Your task to perform on an android device: allow cookies in the chrome app Image 0: 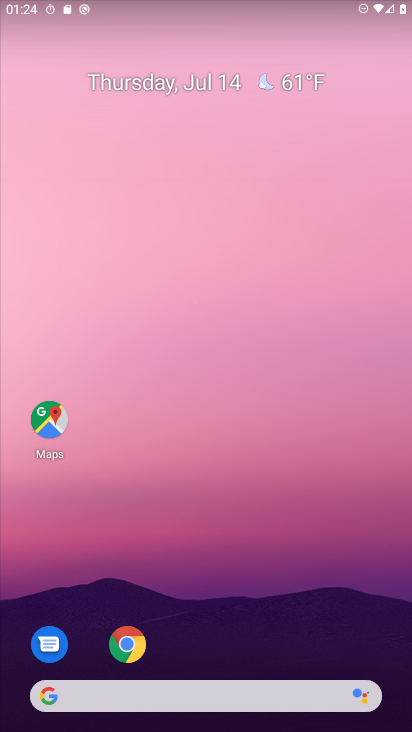
Step 0: drag from (344, 644) to (301, 127)
Your task to perform on an android device: allow cookies in the chrome app Image 1: 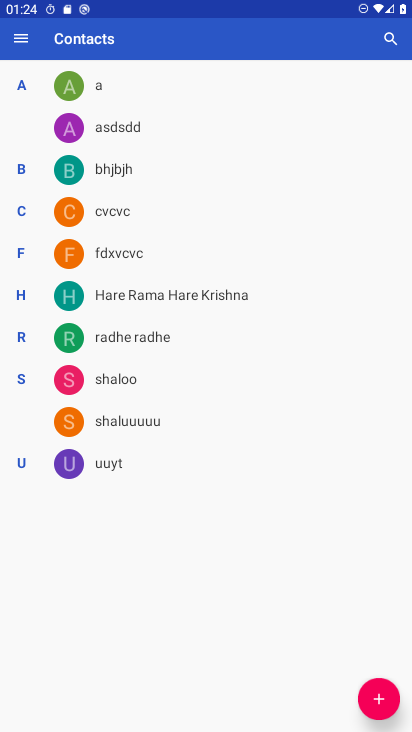
Step 1: press home button
Your task to perform on an android device: allow cookies in the chrome app Image 2: 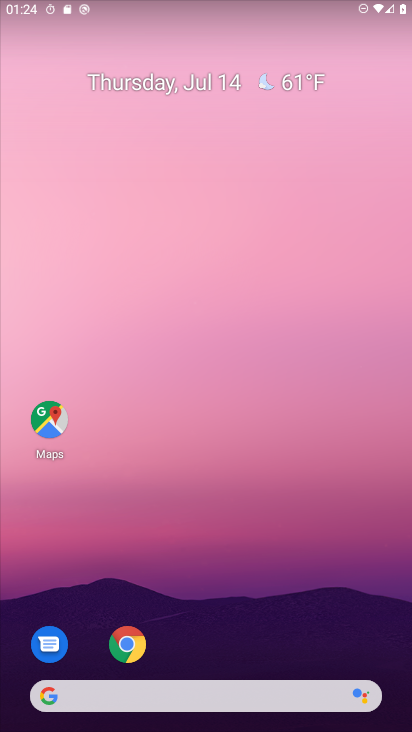
Step 2: drag from (297, 639) to (253, 128)
Your task to perform on an android device: allow cookies in the chrome app Image 3: 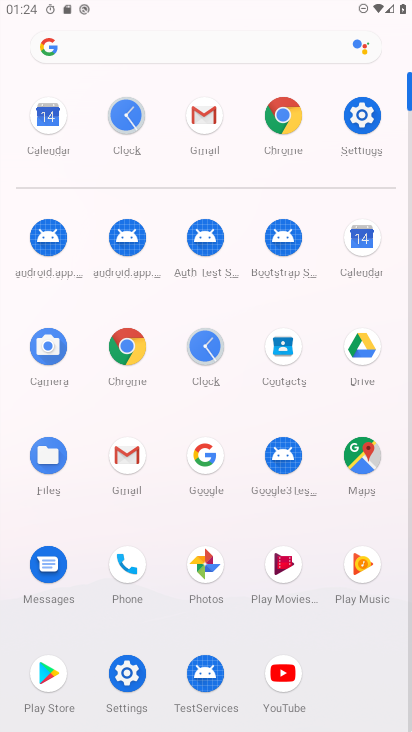
Step 3: click (120, 339)
Your task to perform on an android device: allow cookies in the chrome app Image 4: 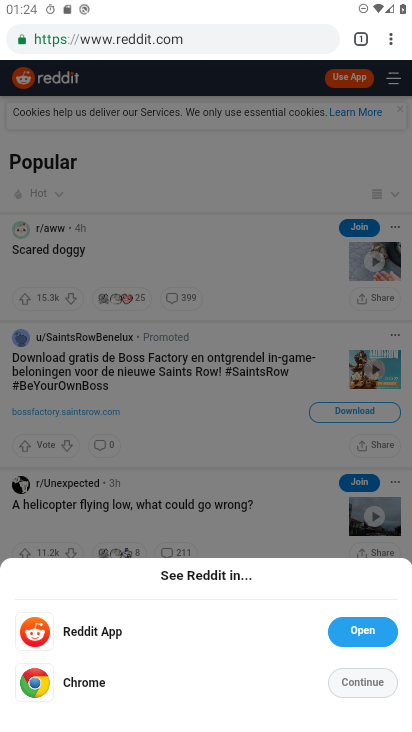
Step 4: drag from (397, 46) to (271, 467)
Your task to perform on an android device: allow cookies in the chrome app Image 5: 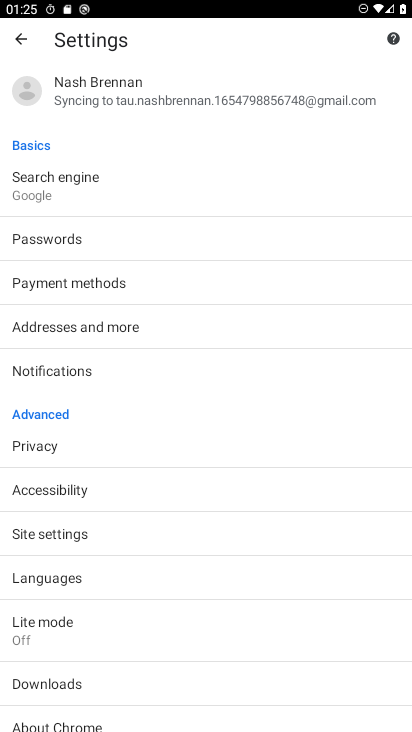
Step 5: click (63, 532)
Your task to perform on an android device: allow cookies in the chrome app Image 6: 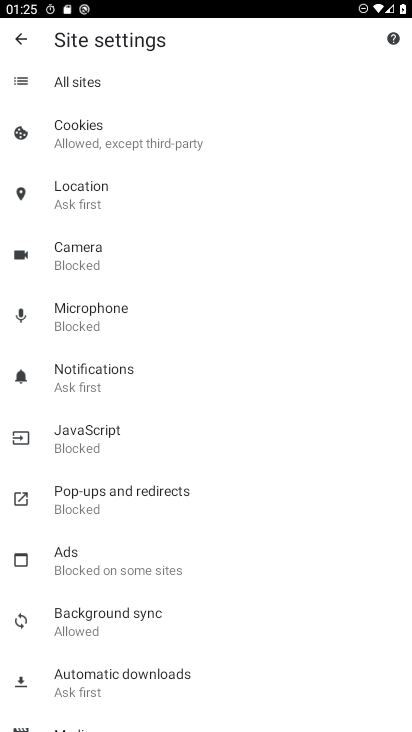
Step 6: click (104, 134)
Your task to perform on an android device: allow cookies in the chrome app Image 7: 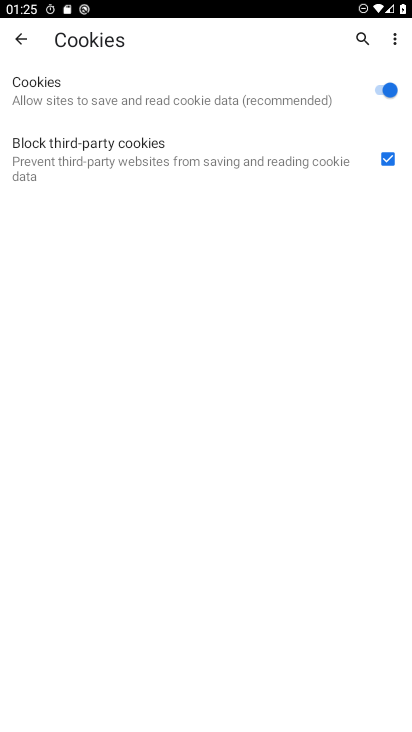
Step 7: task complete